Your task to perform on an android device: allow cookies in the chrome app Image 0: 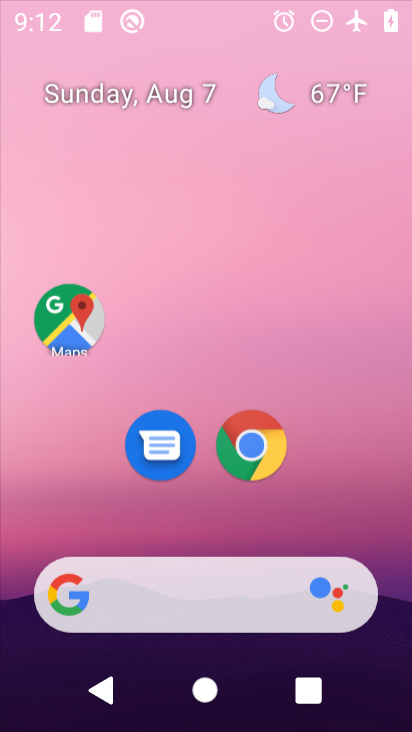
Step 0: press home button
Your task to perform on an android device: allow cookies in the chrome app Image 1: 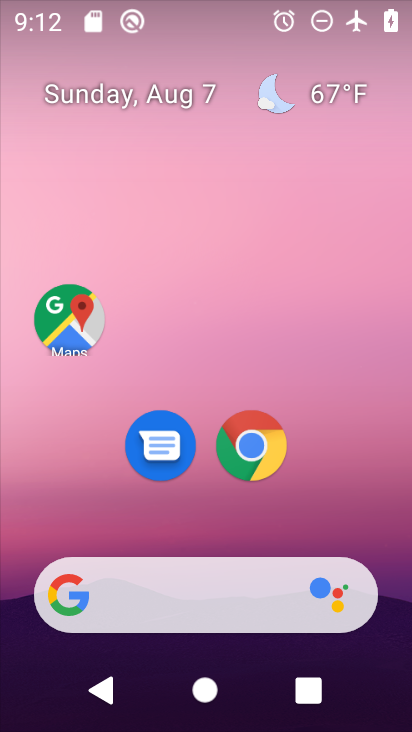
Step 1: click (246, 441)
Your task to perform on an android device: allow cookies in the chrome app Image 2: 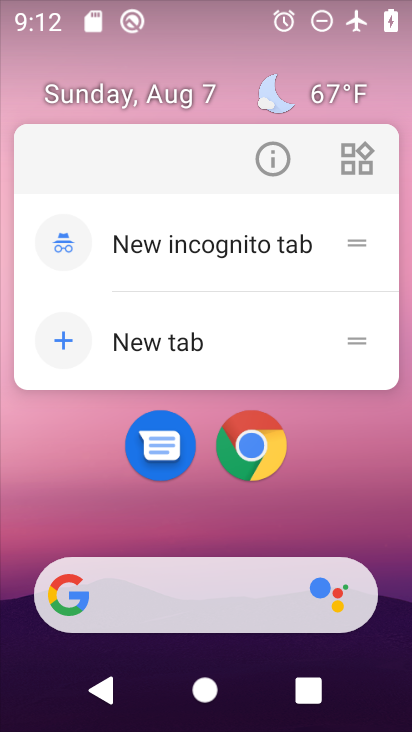
Step 2: click (301, 481)
Your task to perform on an android device: allow cookies in the chrome app Image 3: 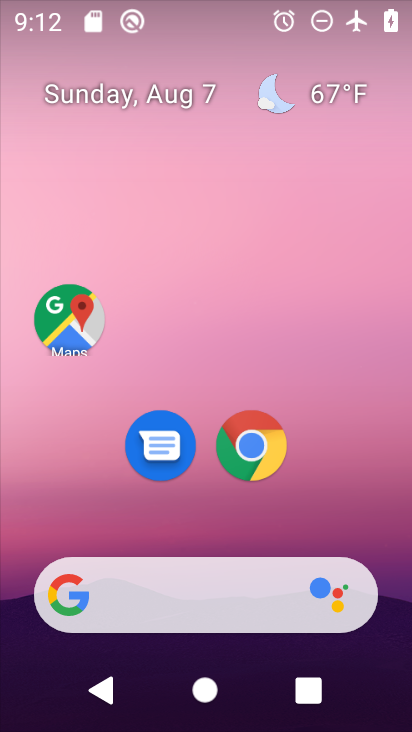
Step 3: drag from (310, 520) to (299, 45)
Your task to perform on an android device: allow cookies in the chrome app Image 4: 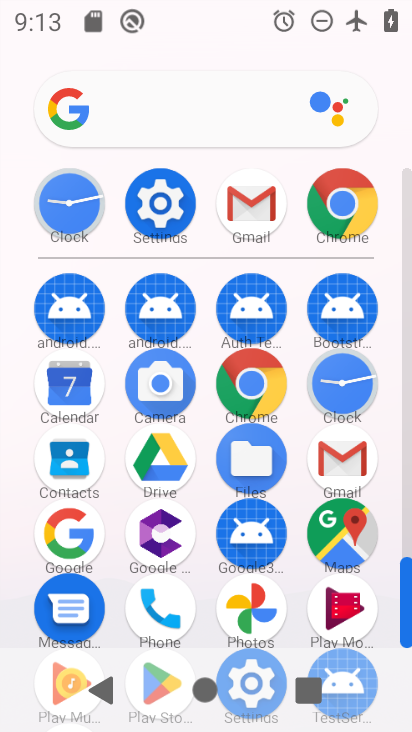
Step 4: click (339, 190)
Your task to perform on an android device: allow cookies in the chrome app Image 5: 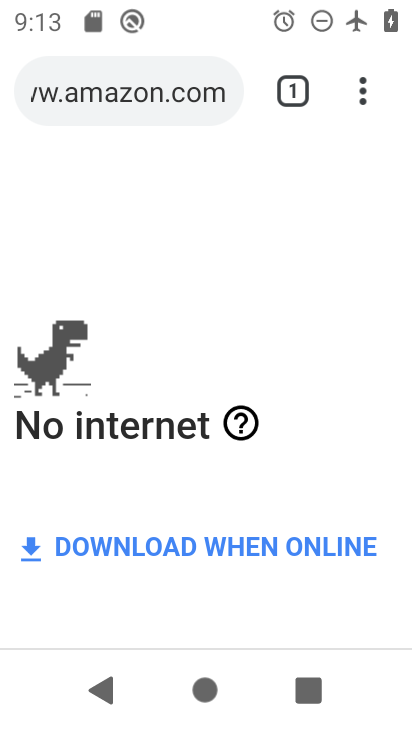
Step 5: click (362, 82)
Your task to perform on an android device: allow cookies in the chrome app Image 6: 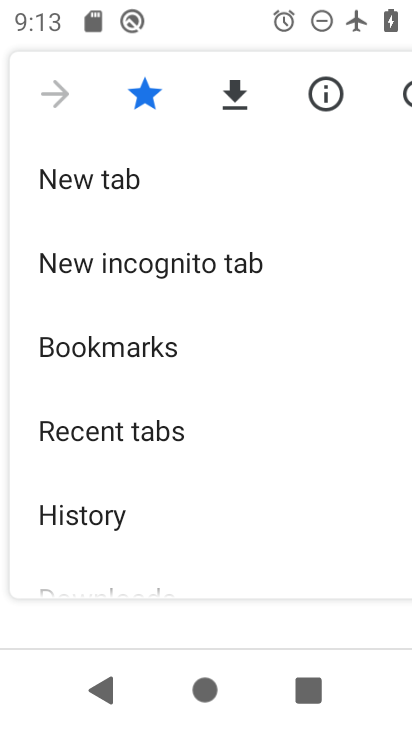
Step 6: drag from (152, 552) to (201, 171)
Your task to perform on an android device: allow cookies in the chrome app Image 7: 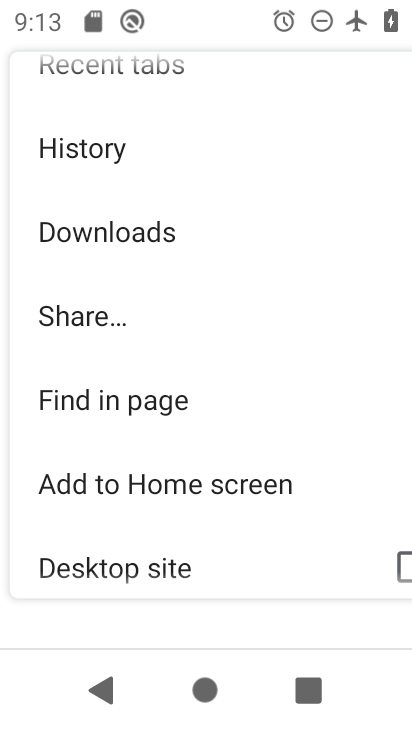
Step 7: drag from (219, 553) to (222, 172)
Your task to perform on an android device: allow cookies in the chrome app Image 8: 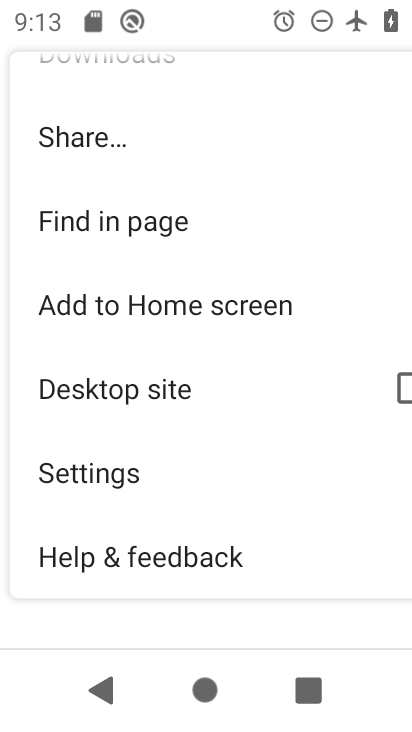
Step 8: click (153, 469)
Your task to perform on an android device: allow cookies in the chrome app Image 9: 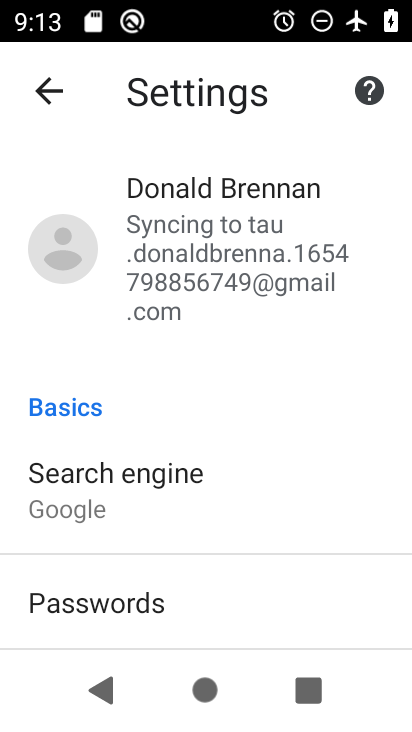
Step 9: drag from (183, 564) to (192, 37)
Your task to perform on an android device: allow cookies in the chrome app Image 10: 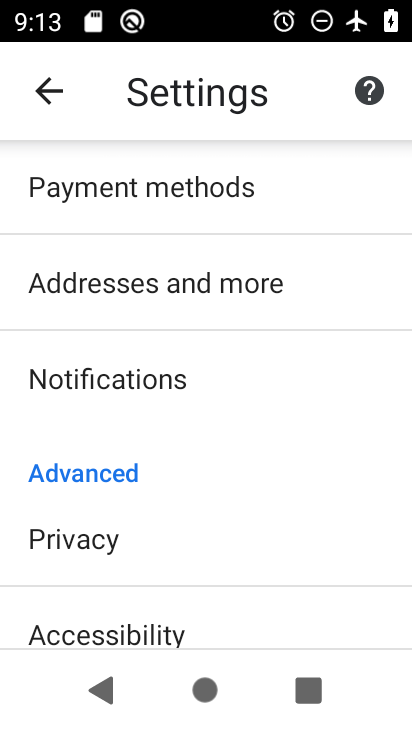
Step 10: drag from (222, 581) to (243, 193)
Your task to perform on an android device: allow cookies in the chrome app Image 11: 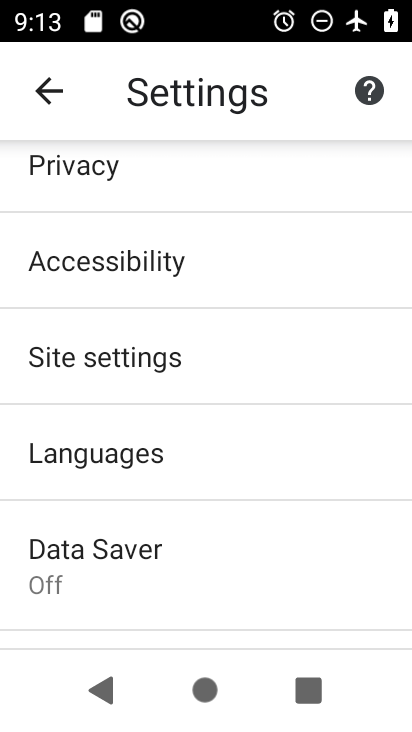
Step 11: click (180, 360)
Your task to perform on an android device: allow cookies in the chrome app Image 12: 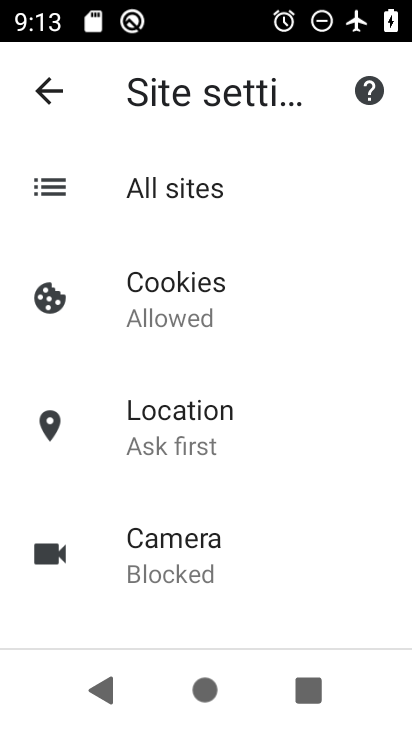
Step 12: click (232, 305)
Your task to perform on an android device: allow cookies in the chrome app Image 13: 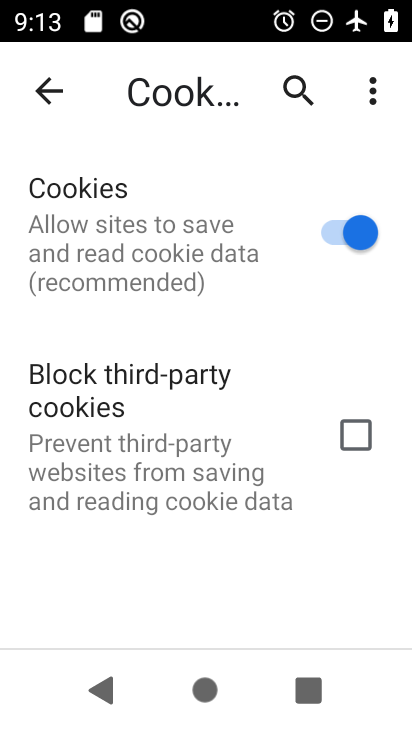
Step 13: task complete